Your task to perform on an android device: Show the shopping cart on costco.com. Search for razer blade on costco.com, select the first entry, and add it to the cart. Image 0: 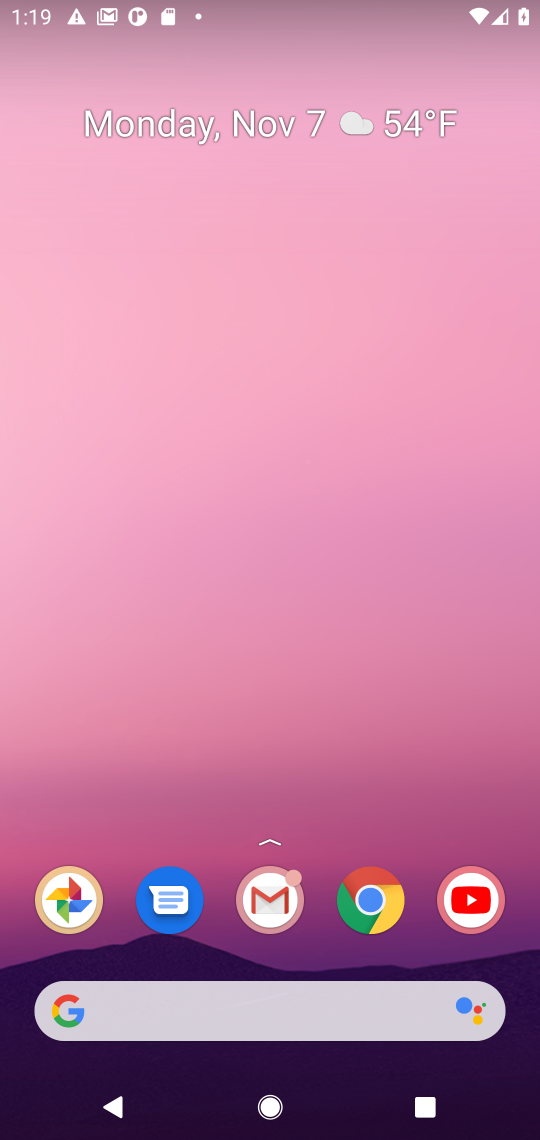
Step 0: click (284, 1025)
Your task to perform on an android device: Show the shopping cart on costco.com. Search for razer blade on costco.com, select the first entry, and add it to the cart. Image 1: 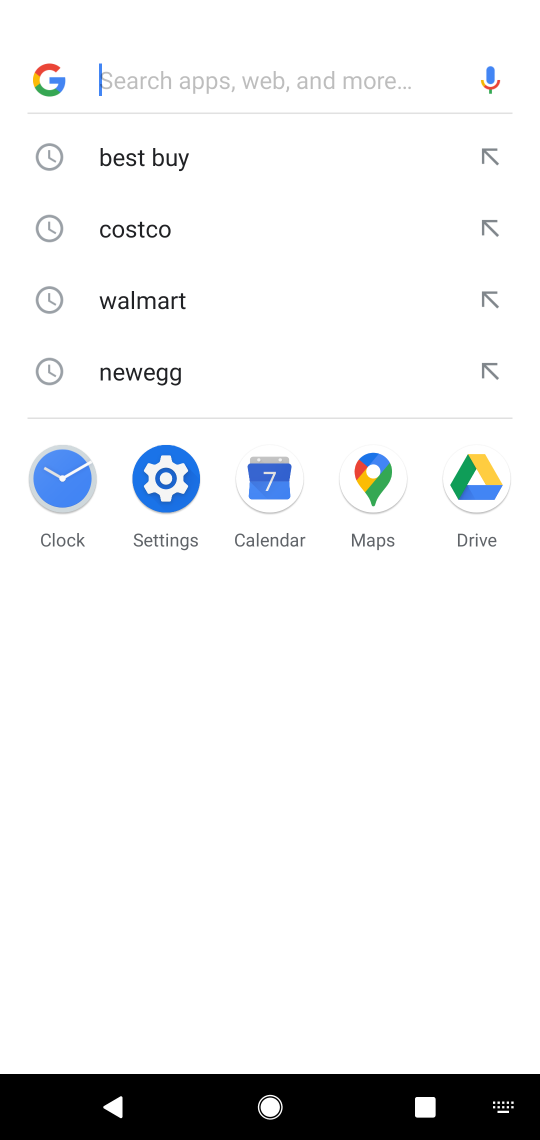
Step 1: click (313, 225)
Your task to perform on an android device: Show the shopping cart on costco.com. Search for razer blade on costco.com, select the first entry, and add it to the cart. Image 2: 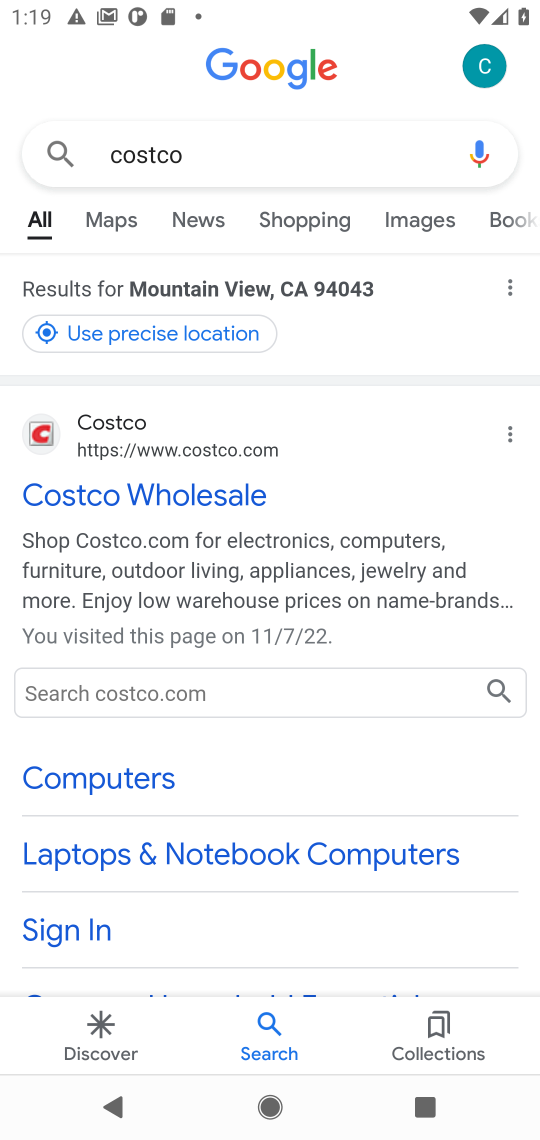
Step 2: click (41, 497)
Your task to perform on an android device: Show the shopping cart on costco.com. Search for razer blade on costco.com, select the first entry, and add it to the cart. Image 3: 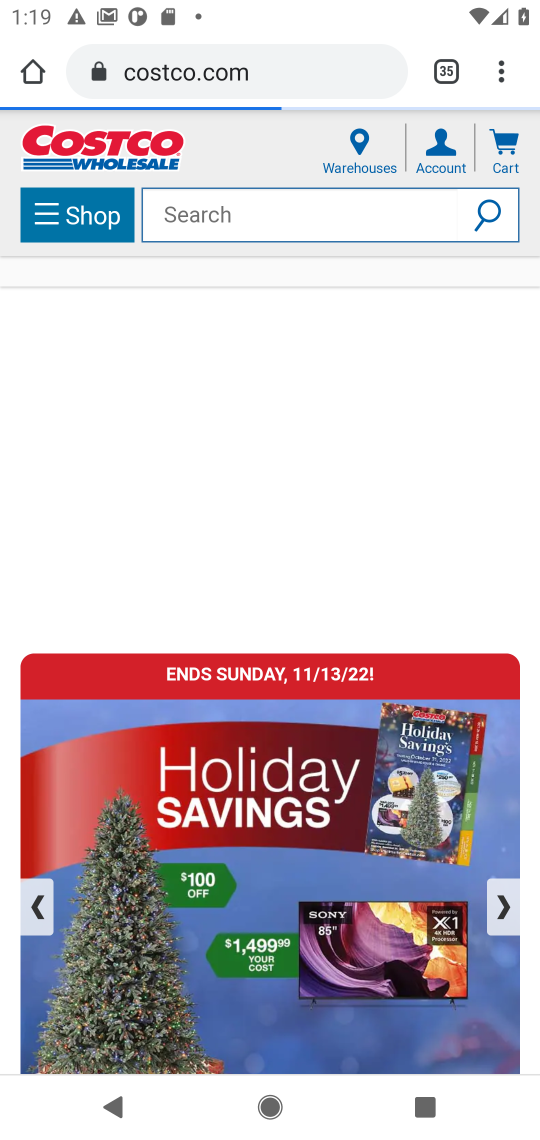
Step 3: task complete